Your task to perform on an android device: turn on improve location accuracy Image 0: 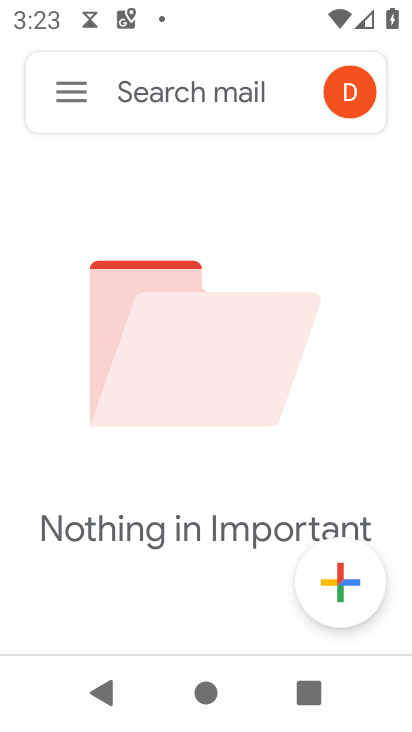
Step 0: click (265, 605)
Your task to perform on an android device: turn on improve location accuracy Image 1: 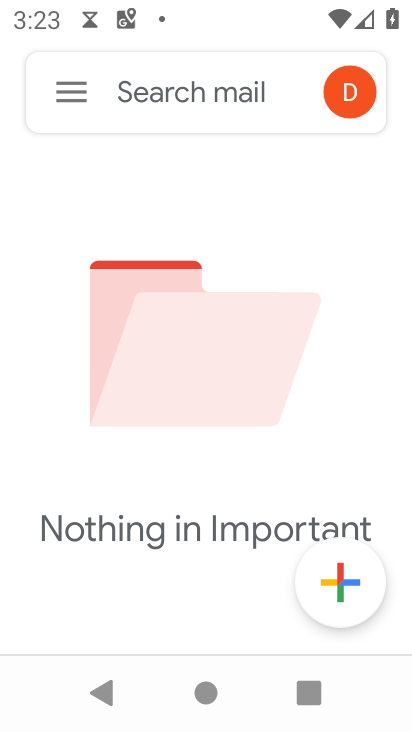
Step 1: press home button
Your task to perform on an android device: turn on improve location accuracy Image 2: 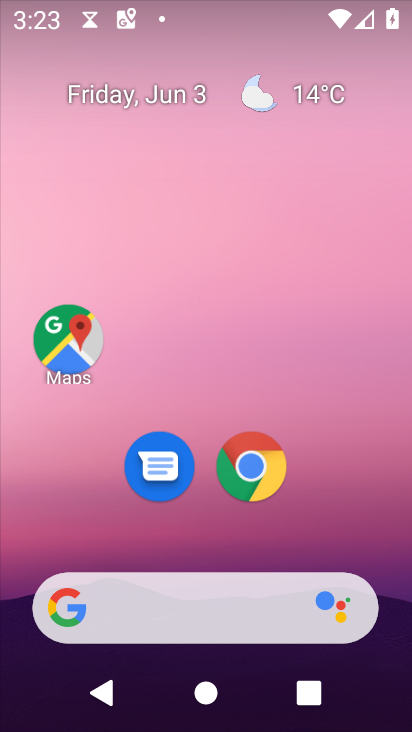
Step 2: drag from (394, 541) to (300, 149)
Your task to perform on an android device: turn on improve location accuracy Image 3: 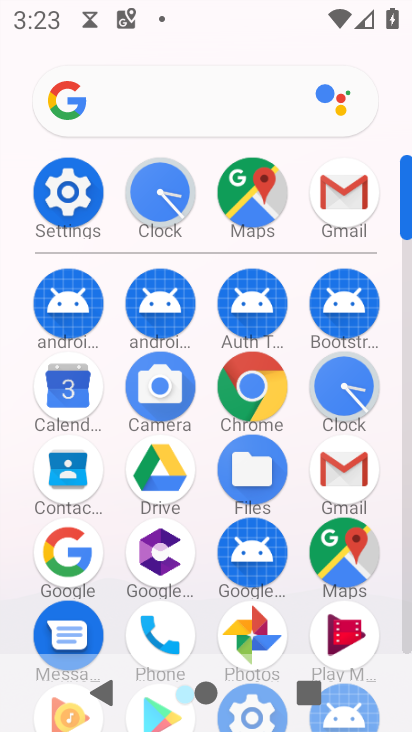
Step 3: click (75, 166)
Your task to perform on an android device: turn on improve location accuracy Image 4: 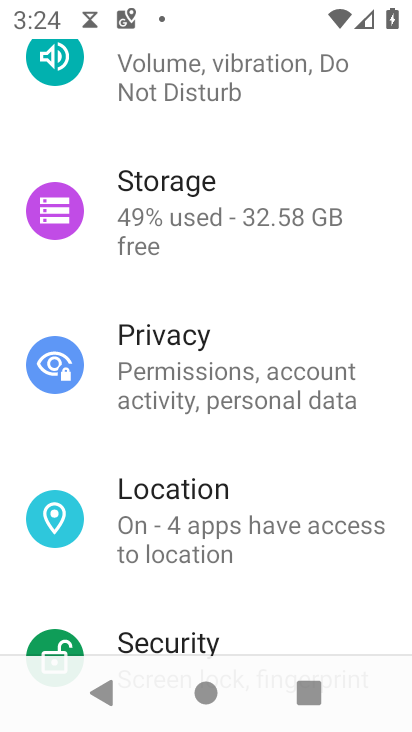
Step 4: click (157, 535)
Your task to perform on an android device: turn on improve location accuracy Image 5: 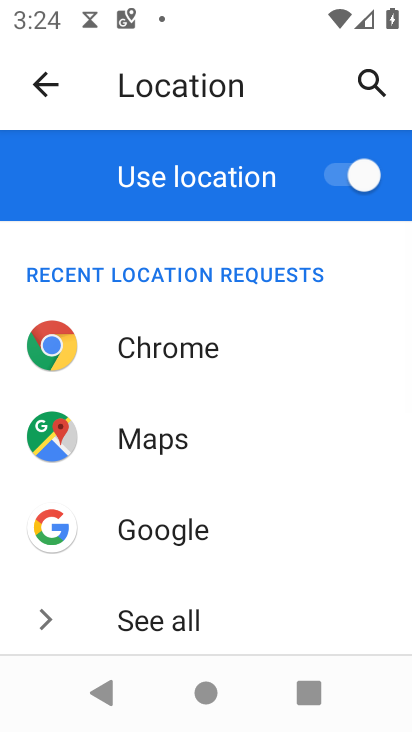
Step 5: drag from (212, 539) to (217, 257)
Your task to perform on an android device: turn on improve location accuracy Image 6: 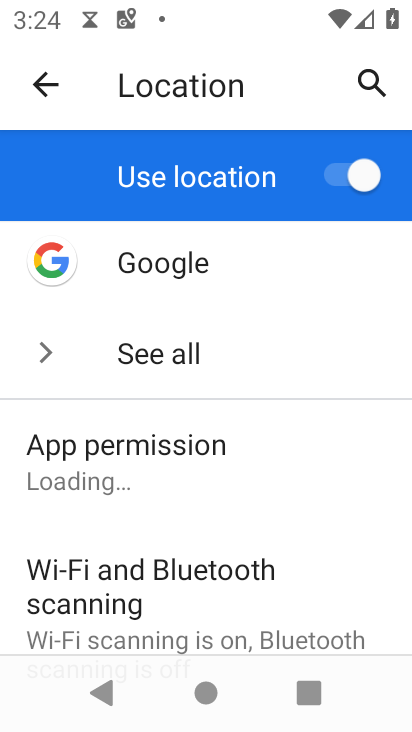
Step 6: drag from (212, 579) to (214, 288)
Your task to perform on an android device: turn on improve location accuracy Image 7: 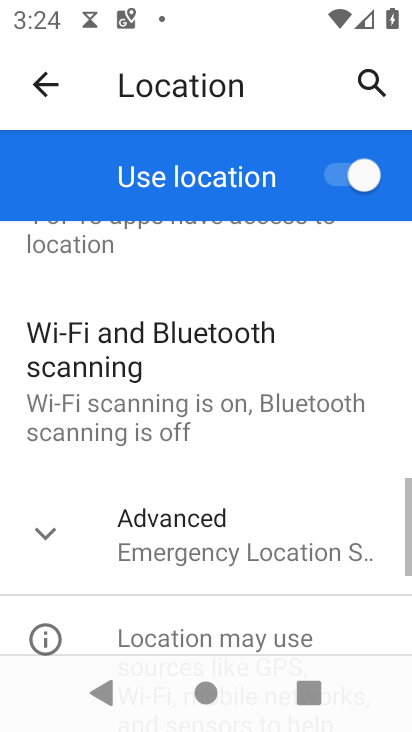
Step 7: click (224, 503)
Your task to perform on an android device: turn on improve location accuracy Image 8: 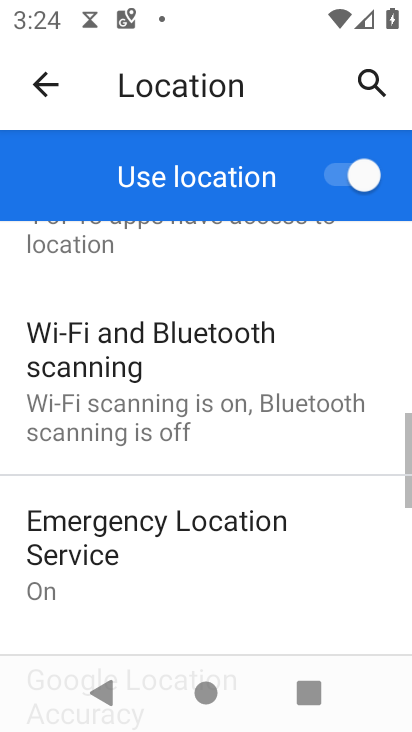
Step 8: drag from (241, 581) to (229, 250)
Your task to perform on an android device: turn on improve location accuracy Image 9: 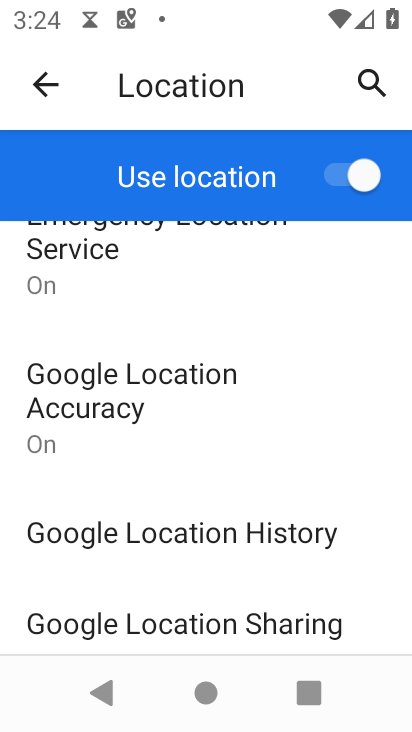
Step 9: click (238, 392)
Your task to perform on an android device: turn on improve location accuracy Image 10: 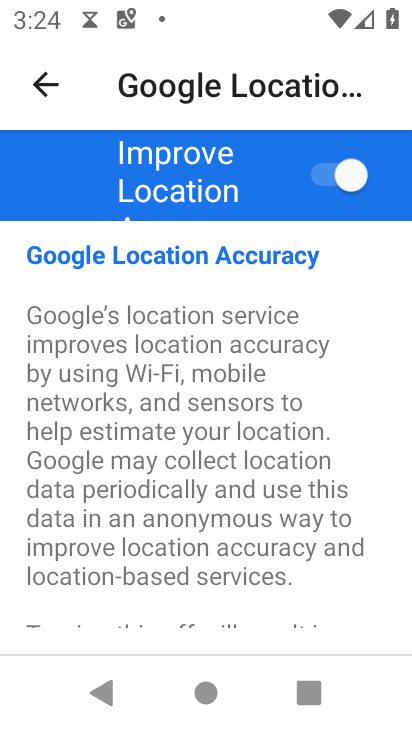
Step 10: task complete